Your task to perform on an android device: show emergency info Image 0: 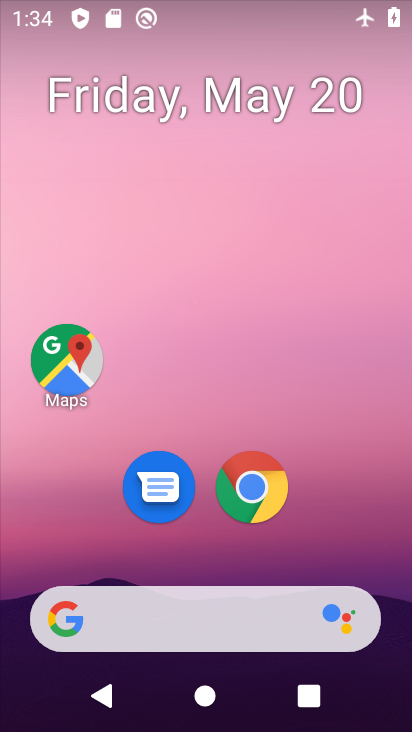
Step 0: drag from (351, 477) to (225, 1)
Your task to perform on an android device: show emergency info Image 1: 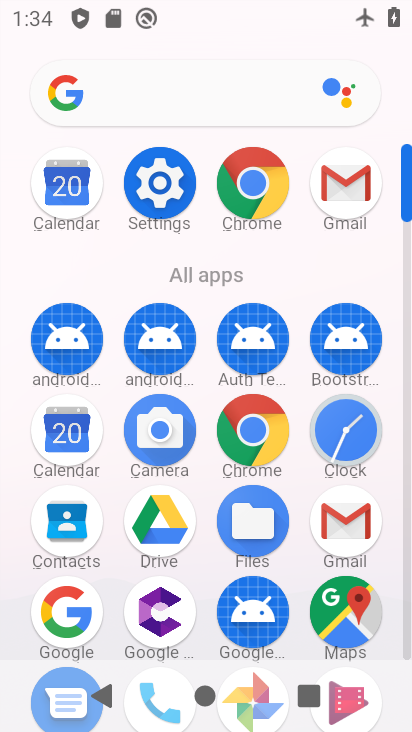
Step 1: click (160, 195)
Your task to perform on an android device: show emergency info Image 2: 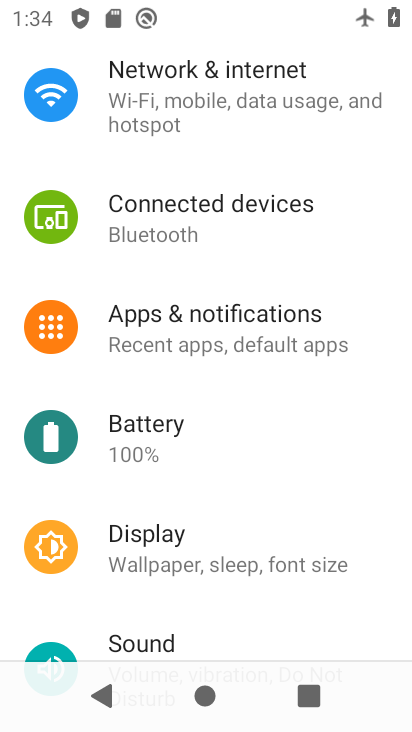
Step 2: drag from (241, 527) to (221, 101)
Your task to perform on an android device: show emergency info Image 3: 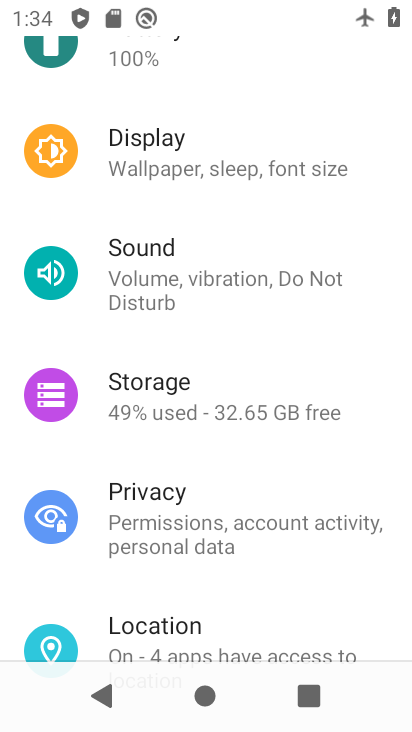
Step 3: drag from (207, 527) to (178, 118)
Your task to perform on an android device: show emergency info Image 4: 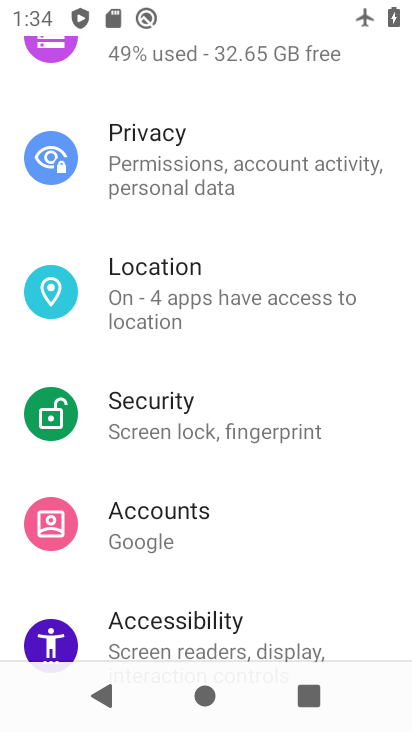
Step 4: drag from (150, 510) to (120, 33)
Your task to perform on an android device: show emergency info Image 5: 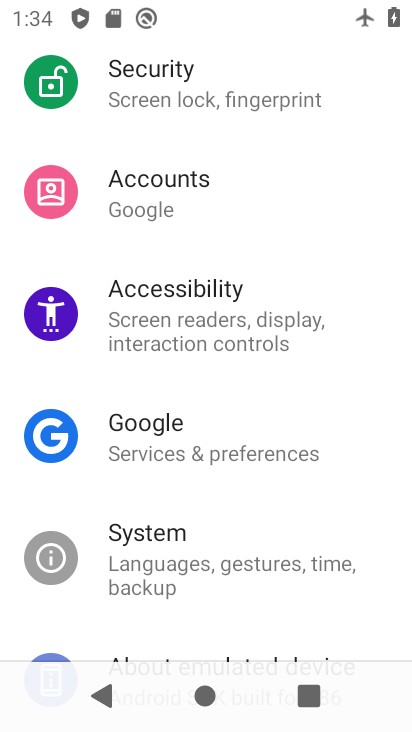
Step 5: drag from (105, 515) to (107, 71)
Your task to perform on an android device: show emergency info Image 6: 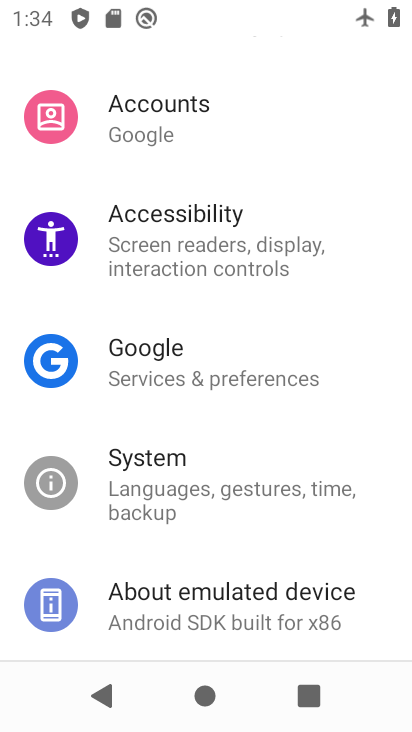
Step 6: click (190, 607)
Your task to perform on an android device: show emergency info Image 7: 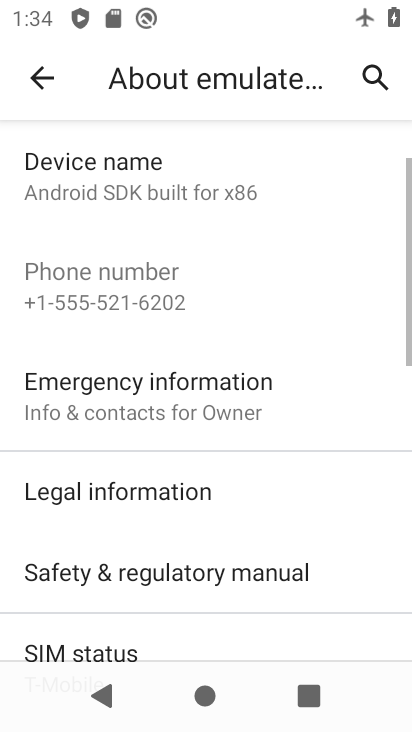
Step 7: click (136, 396)
Your task to perform on an android device: show emergency info Image 8: 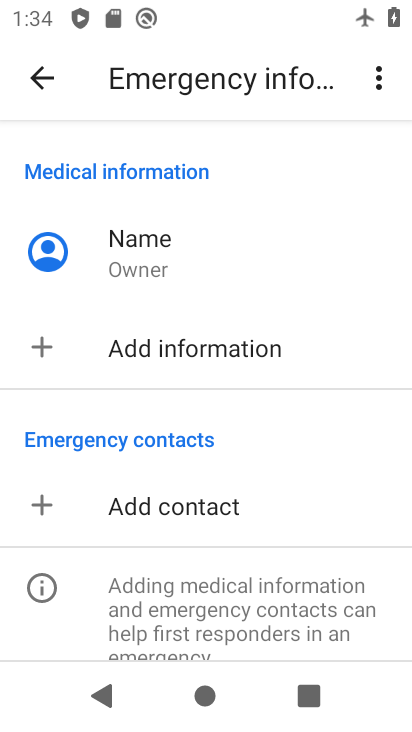
Step 8: task complete